Your task to perform on an android device: Open network settings Image 0: 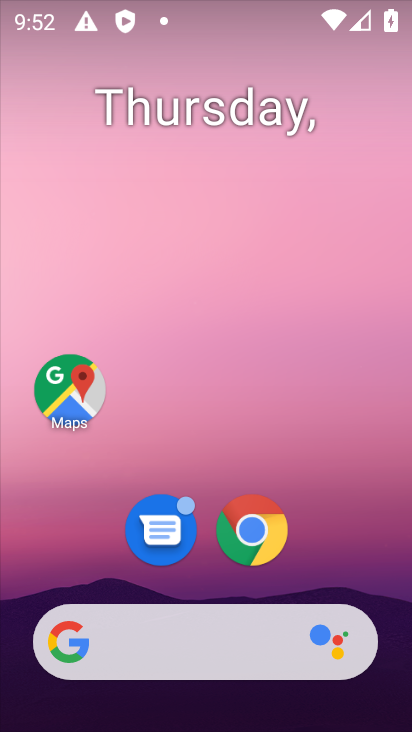
Step 0: press home button
Your task to perform on an android device: Open network settings Image 1: 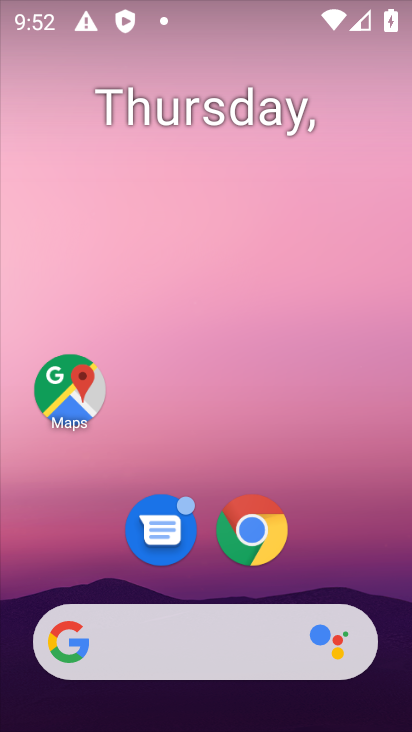
Step 1: press home button
Your task to perform on an android device: Open network settings Image 2: 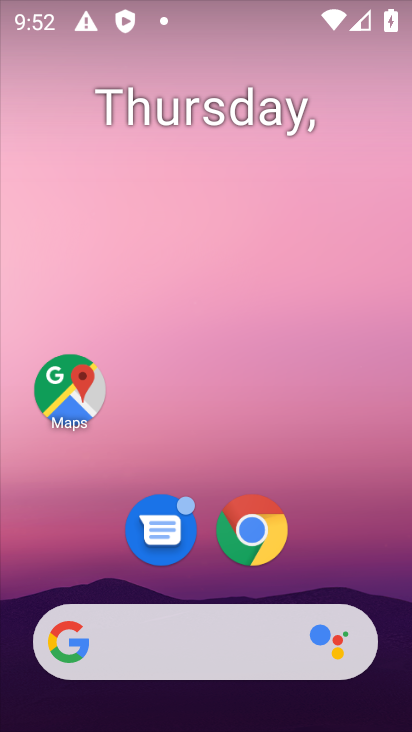
Step 2: drag from (346, 579) to (407, 10)
Your task to perform on an android device: Open network settings Image 3: 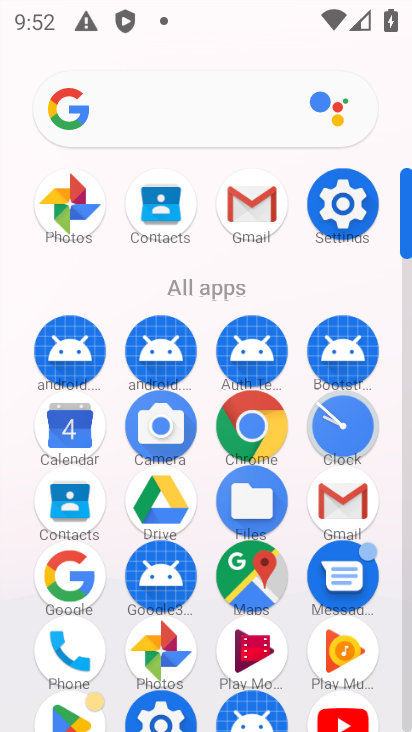
Step 3: click (325, 204)
Your task to perform on an android device: Open network settings Image 4: 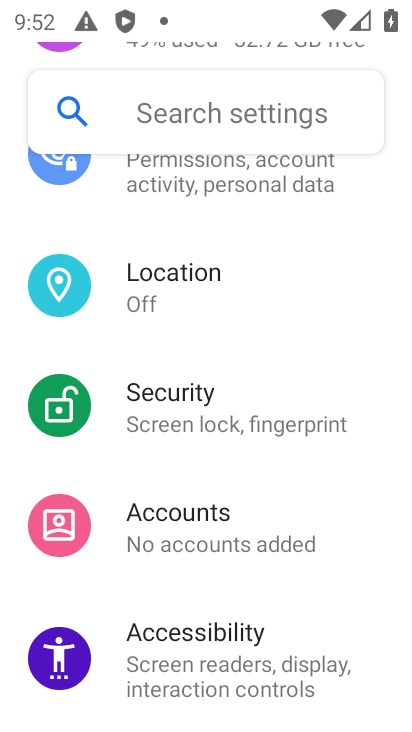
Step 4: drag from (111, 490) to (86, 148)
Your task to perform on an android device: Open network settings Image 5: 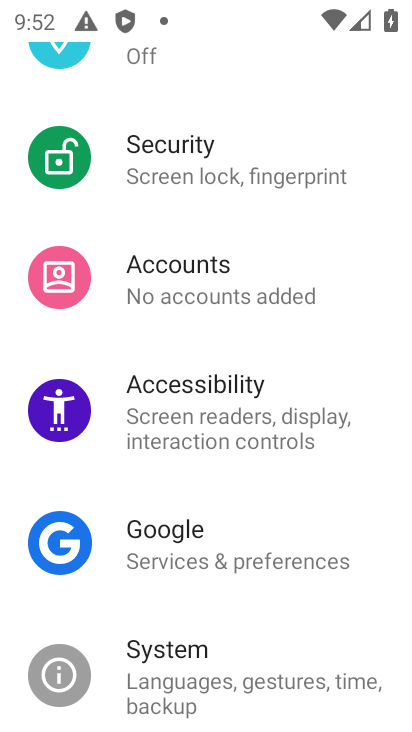
Step 5: drag from (110, 221) to (116, 700)
Your task to perform on an android device: Open network settings Image 6: 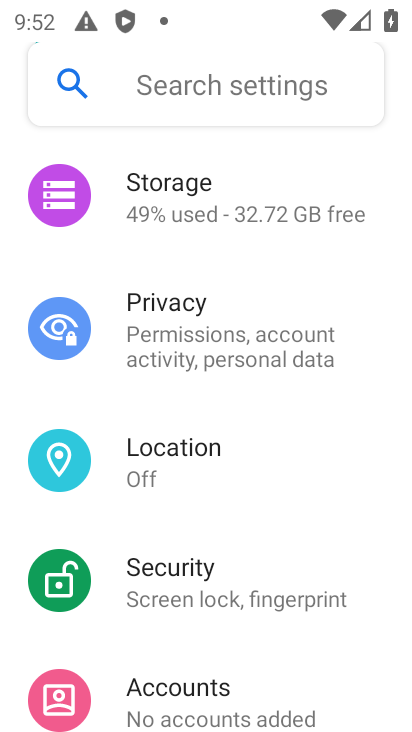
Step 6: drag from (107, 255) to (121, 730)
Your task to perform on an android device: Open network settings Image 7: 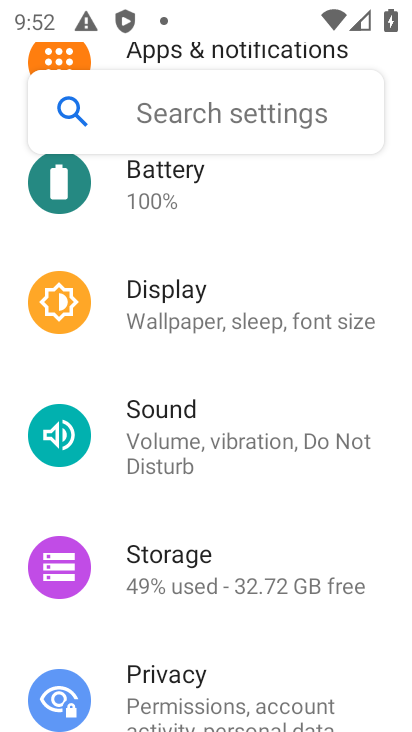
Step 7: drag from (95, 236) to (234, 701)
Your task to perform on an android device: Open network settings Image 8: 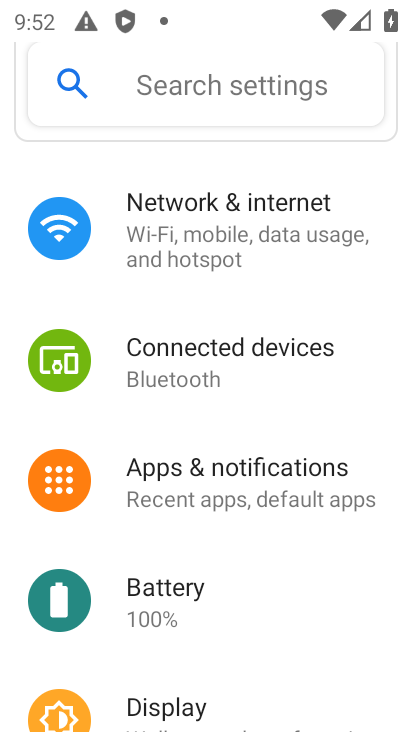
Step 8: click (226, 259)
Your task to perform on an android device: Open network settings Image 9: 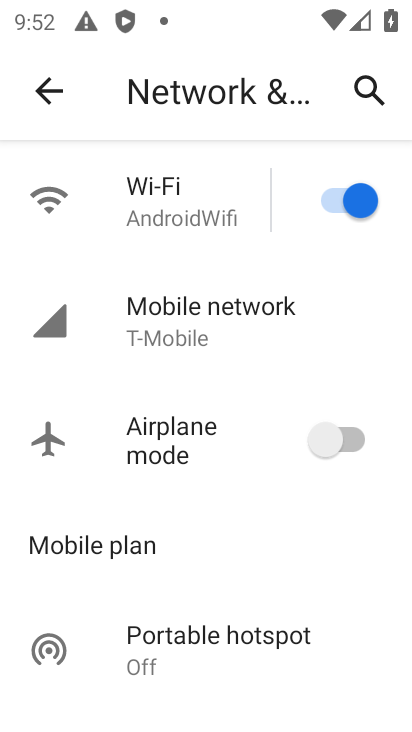
Step 9: click (291, 318)
Your task to perform on an android device: Open network settings Image 10: 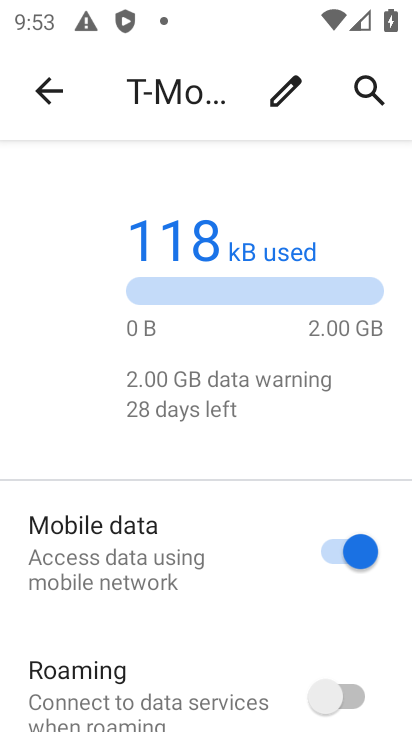
Step 10: task complete